Your task to perform on an android device: see sites visited before in the chrome app Image 0: 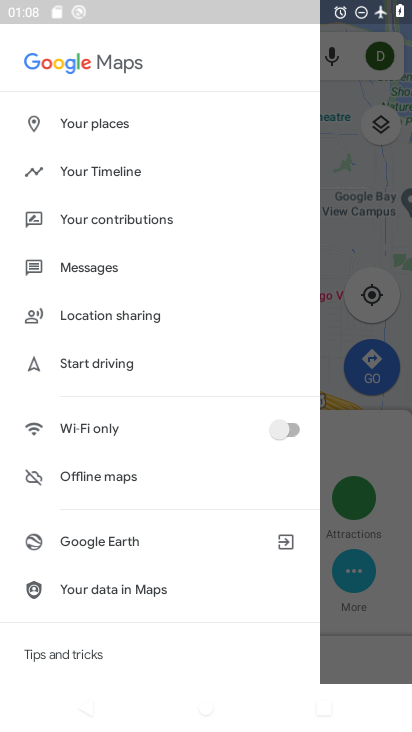
Step 0: press home button
Your task to perform on an android device: see sites visited before in the chrome app Image 1: 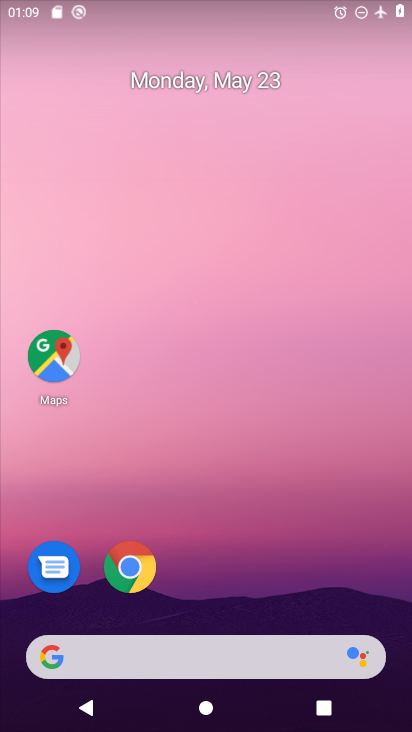
Step 1: click (139, 566)
Your task to perform on an android device: see sites visited before in the chrome app Image 2: 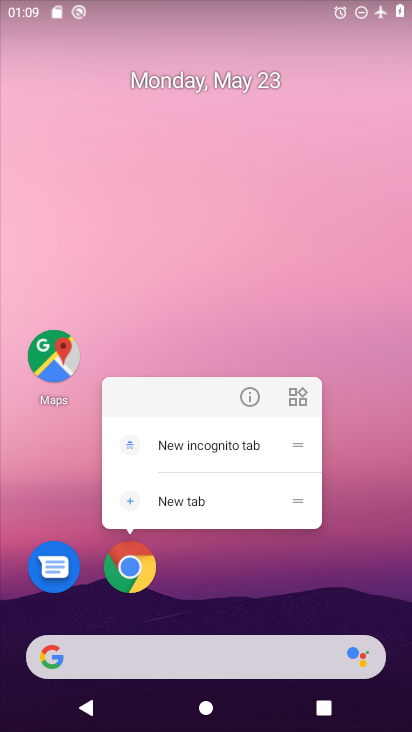
Step 2: click (141, 567)
Your task to perform on an android device: see sites visited before in the chrome app Image 3: 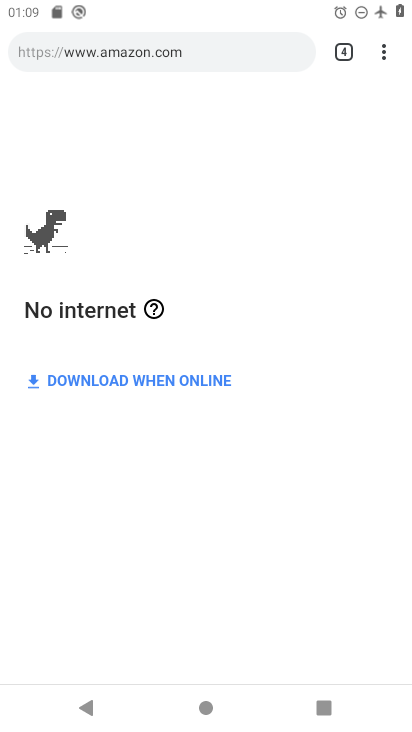
Step 3: click (381, 46)
Your task to perform on an android device: see sites visited before in the chrome app Image 4: 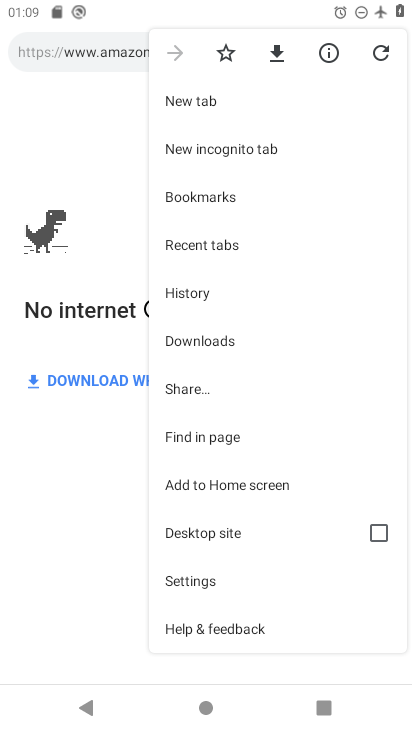
Step 4: click (242, 242)
Your task to perform on an android device: see sites visited before in the chrome app Image 5: 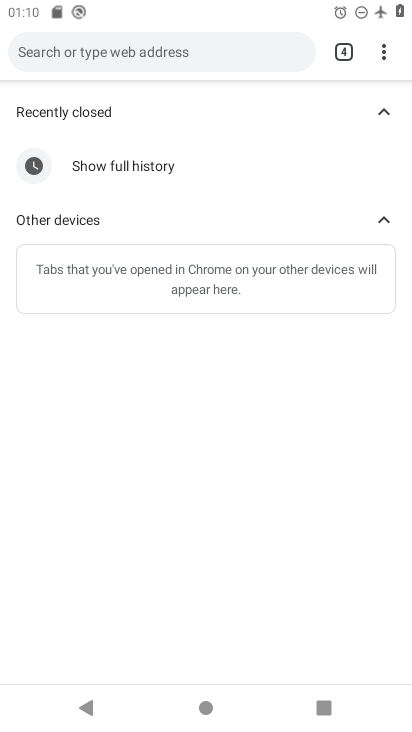
Step 5: task complete